Your task to perform on an android device: Go to Yahoo.com Image 0: 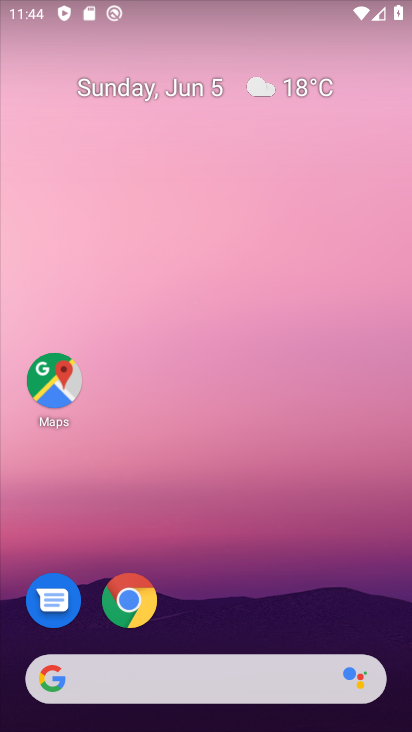
Step 0: drag from (231, 711) to (150, 132)
Your task to perform on an android device: Go to Yahoo.com Image 1: 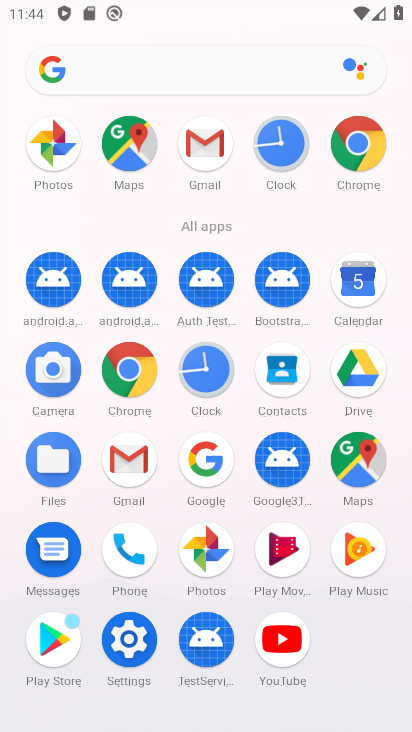
Step 1: drag from (159, 425) to (139, 147)
Your task to perform on an android device: Go to Yahoo.com Image 2: 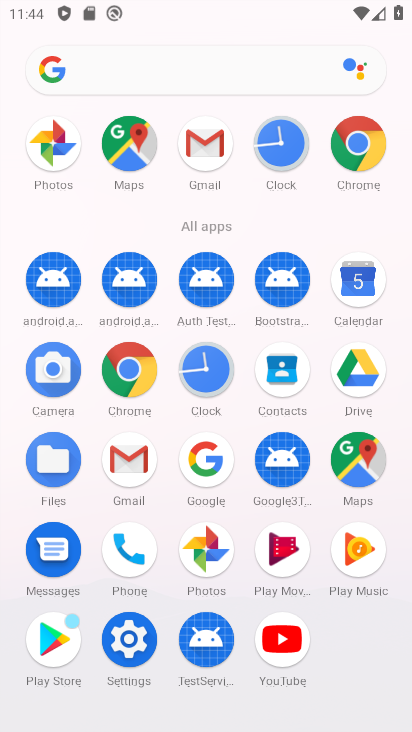
Step 2: click (358, 133)
Your task to perform on an android device: Go to Yahoo.com Image 3: 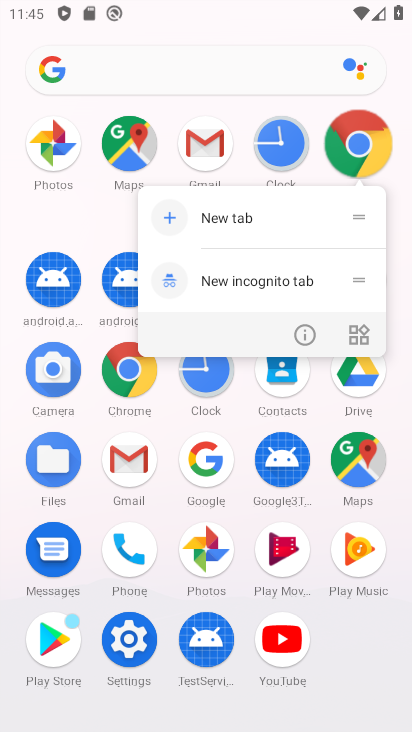
Step 3: click (358, 133)
Your task to perform on an android device: Go to Yahoo.com Image 4: 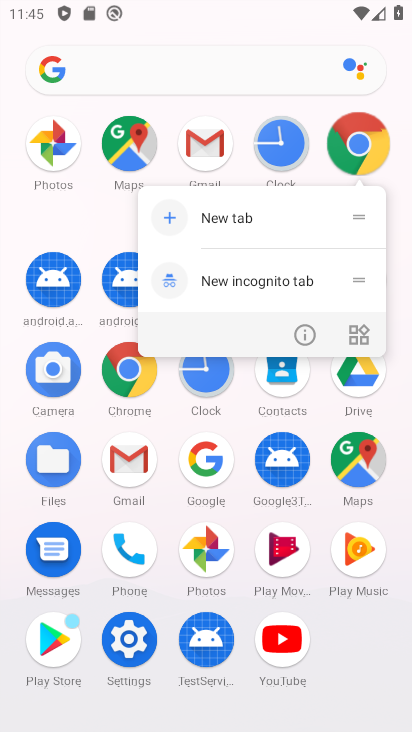
Step 4: click (358, 133)
Your task to perform on an android device: Go to Yahoo.com Image 5: 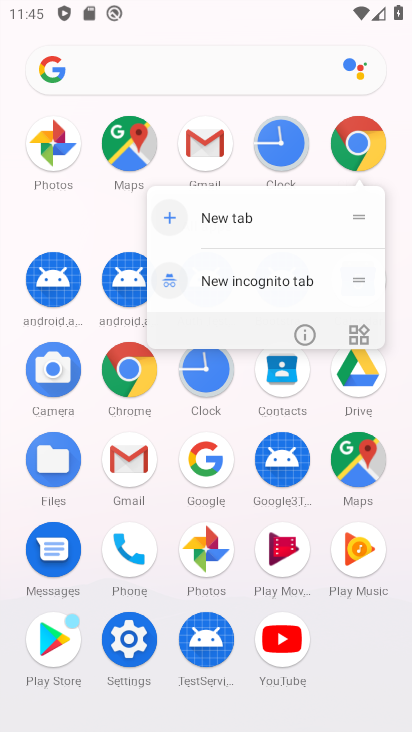
Step 5: click (357, 133)
Your task to perform on an android device: Go to Yahoo.com Image 6: 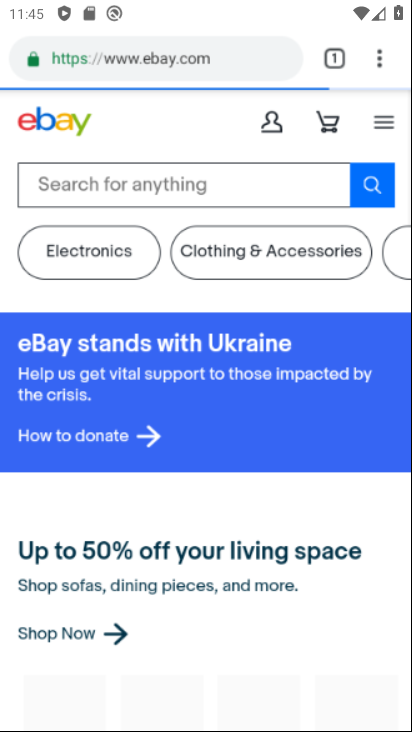
Step 6: click (346, 141)
Your task to perform on an android device: Go to Yahoo.com Image 7: 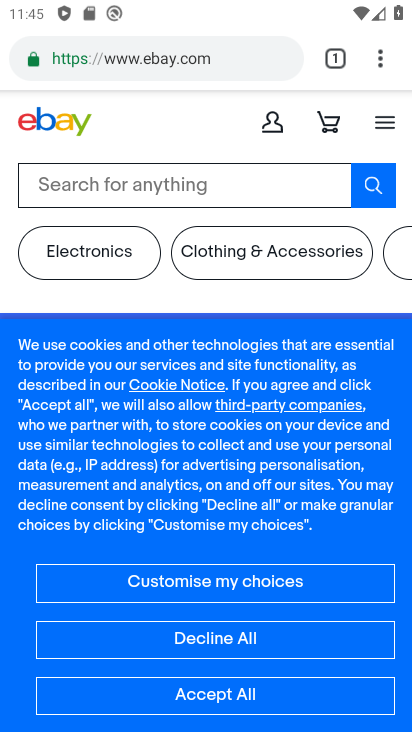
Step 7: drag from (377, 61) to (155, 120)
Your task to perform on an android device: Go to Yahoo.com Image 8: 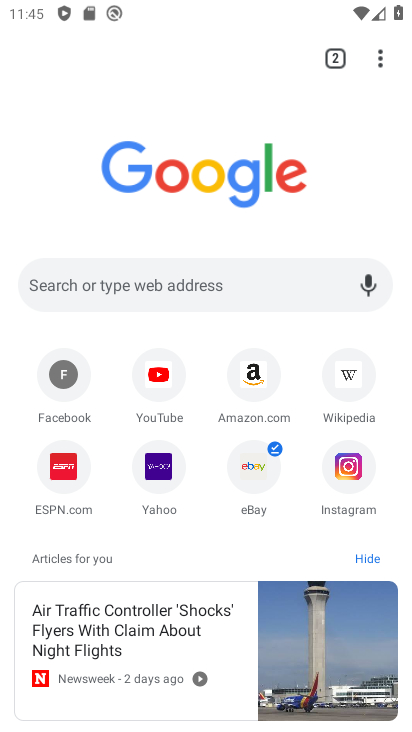
Step 8: click (183, 134)
Your task to perform on an android device: Go to Yahoo.com Image 9: 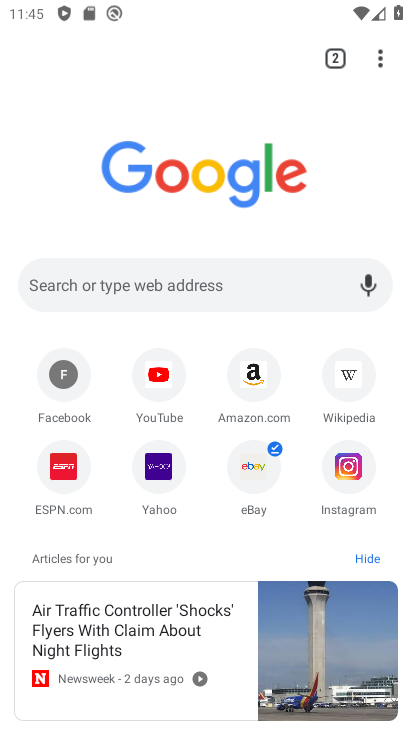
Step 9: click (157, 479)
Your task to perform on an android device: Go to Yahoo.com Image 10: 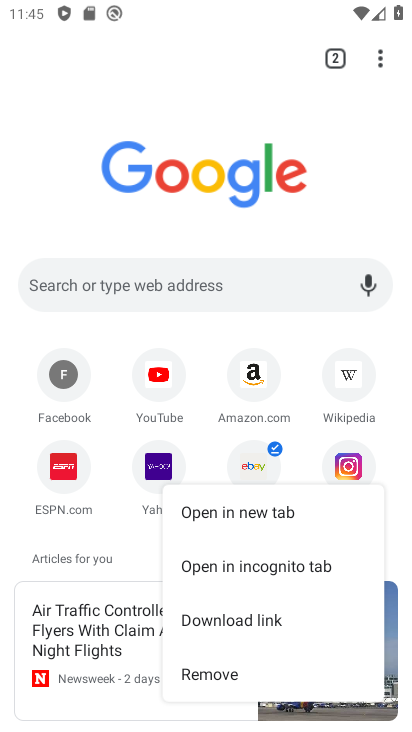
Step 10: click (158, 478)
Your task to perform on an android device: Go to Yahoo.com Image 11: 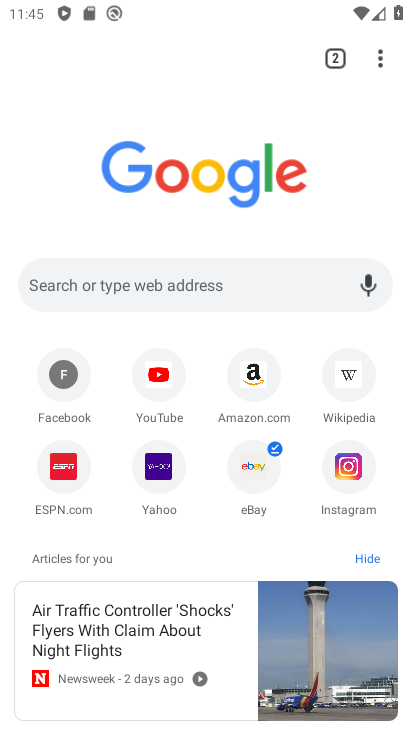
Step 11: click (161, 472)
Your task to perform on an android device: Go to Yahoo.com Image 12: 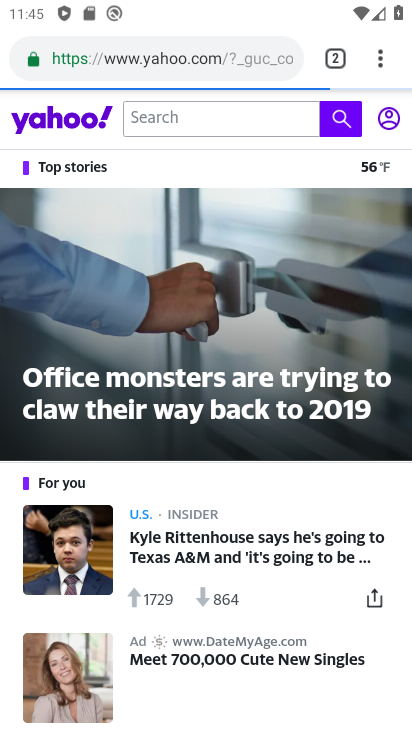
Step 12: task complete